Your task to perform on an android device: all mails in gmail Image 0: 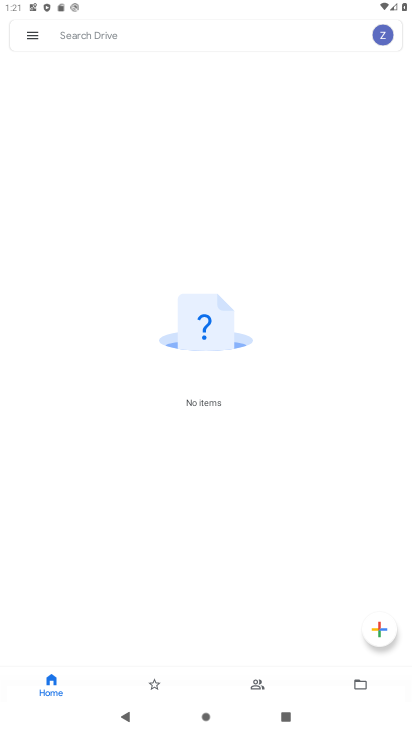
Step 0: press home button
Your task to perform on an android device: all mails in gmail Image 1: 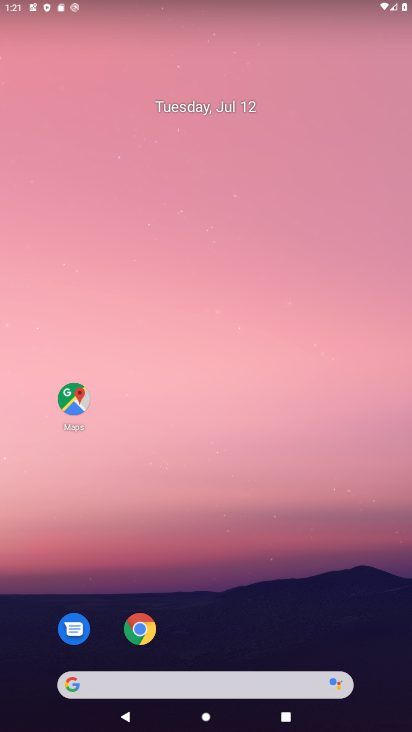
Step 1: drag from (188, 452) to (188, 153)
Your task to perform on an android device: all mails in gmail Image 2: 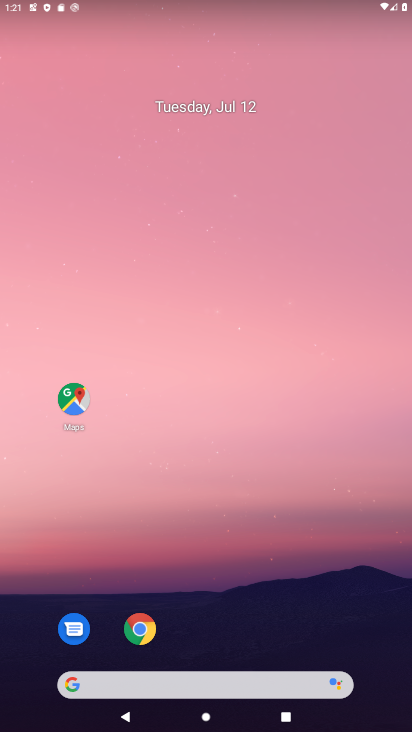
Step 2: drag from (197, 559) to (235, 128)
Your task to perform on an android device: all mails in gmail Image 3: 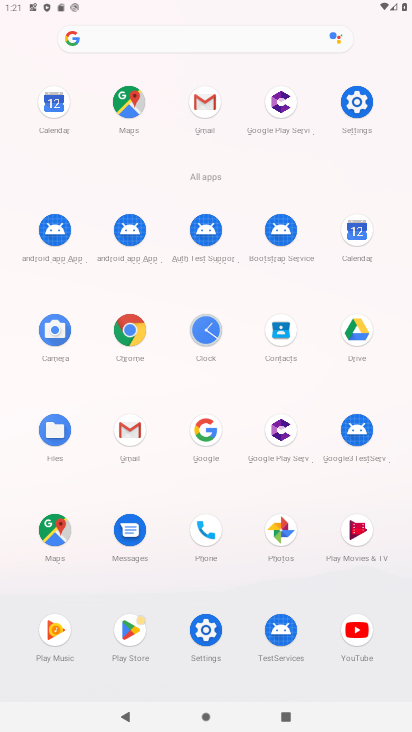
Step 3: click (196, 100)
Your task to perform on an android device: all mails in gmail Image 4: 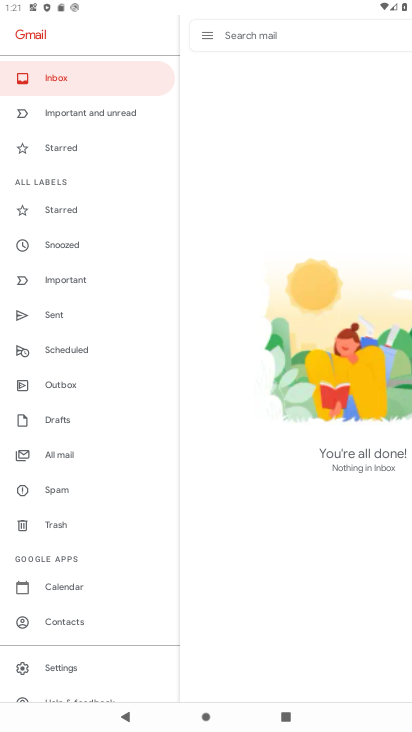
Step 4: click (48, 451)
Your task to perform on an android device: all mails in gmail Image 5: 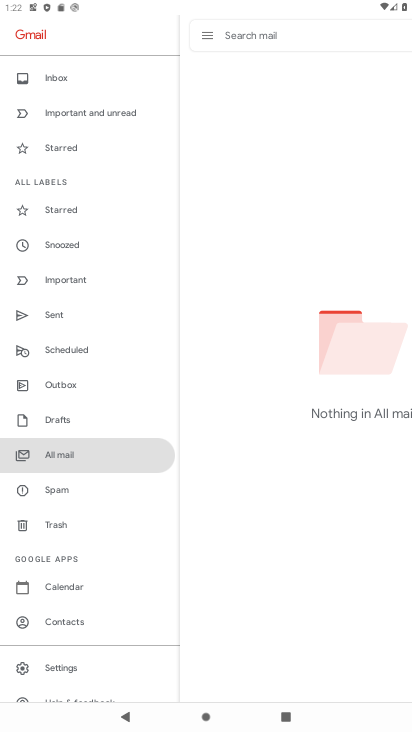
Step 5: task complete